Your task to perform on an android device: Search for vegetarian restaurants on Maps Image 0: 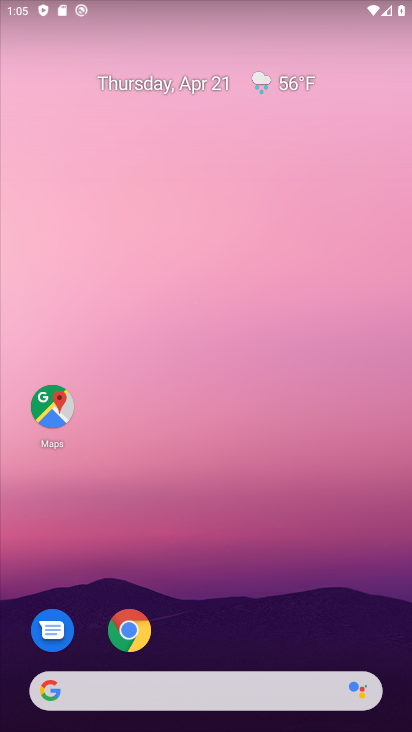
Step 0: drag from (331, 581) to (303, 216)
Your task to perform on an android device: Search for vegetarian restaurants on Maps Image 1: 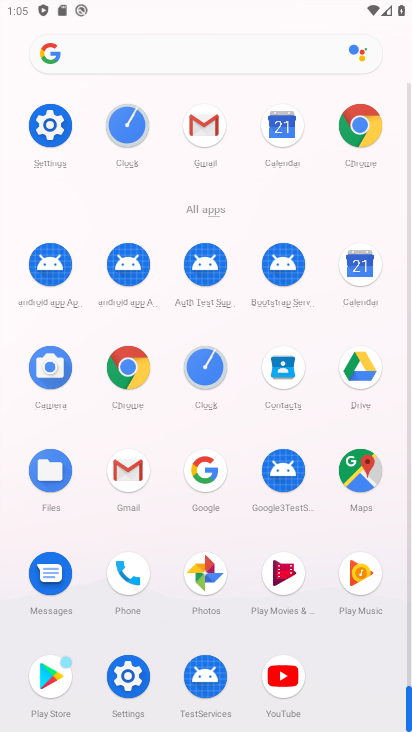
Step 1: click (366, 462)
Your task to perform on an android device: Search for vegetarian restaurants on Maps Image 2: 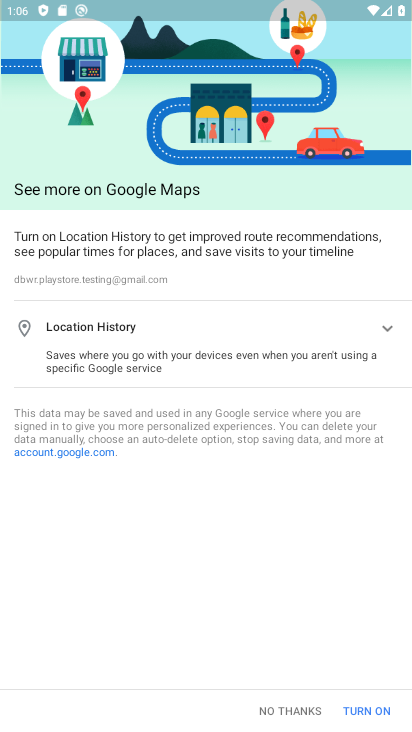
Step 2: click (301, 712)
Your task to perform on an android device: Search for vegetarian restaurants on Maps Image 3: 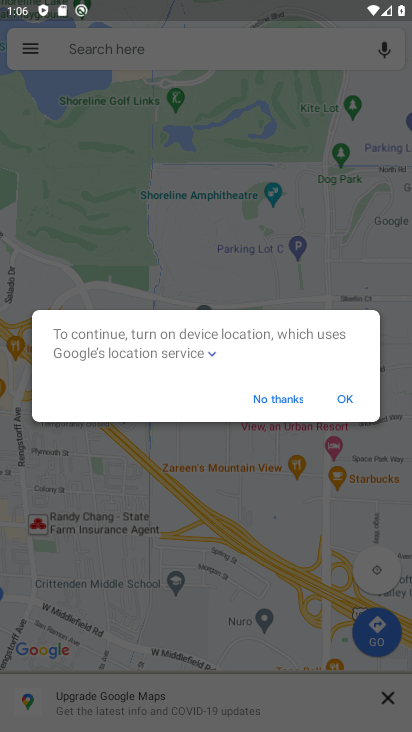
Step 3: click (341, 399)
Your task to perform on an android device: Search for vegetarian restaurants on Maps Image 4: 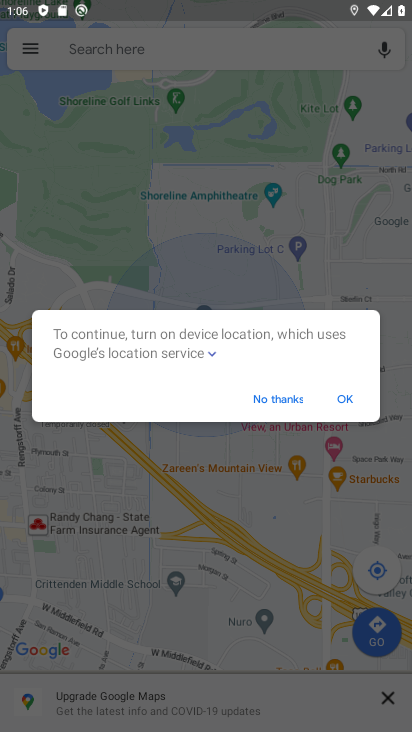
Step 4: click (343, 402)
Your task to perform on an android device: Search for vegetarian restaurants on Maps Image 5: 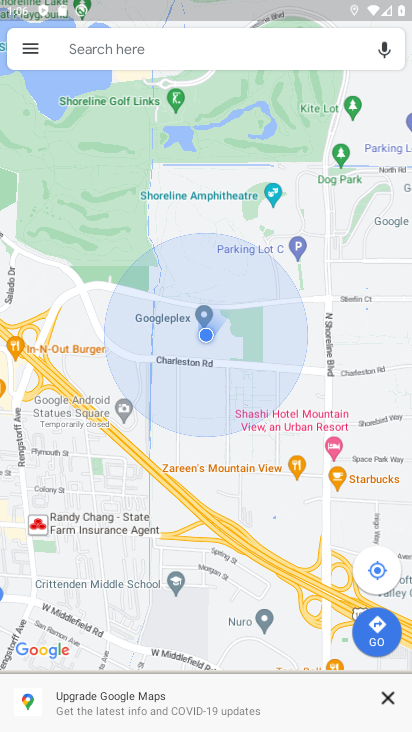
Step 5: click (176, 50)
Your task to perform on an android device: Search for vegetarian restaurants on Maps Image 6: 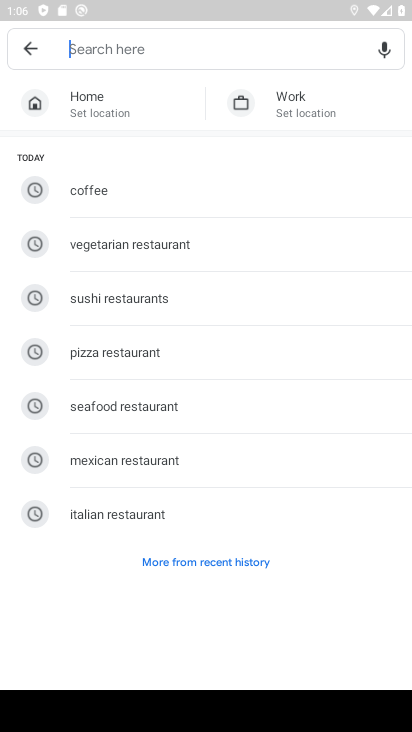
Step 6: click (158, 244)
Your task to perform on an android device: Search for vegetarian restaurants on Maps Image 7: 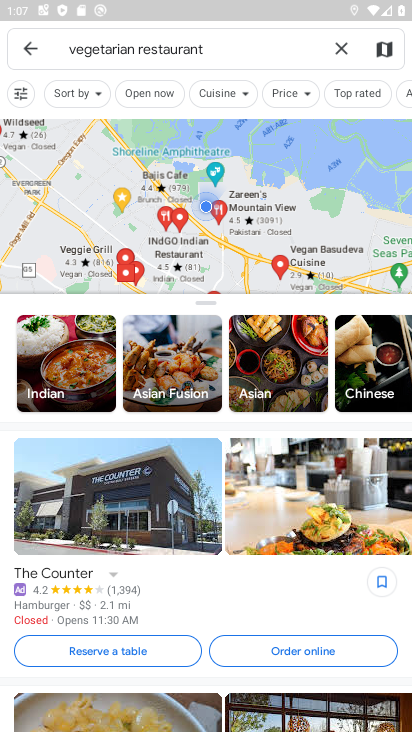
Step 7: task complete